Your task to perform on an android device: turn notification dots on Image 0: 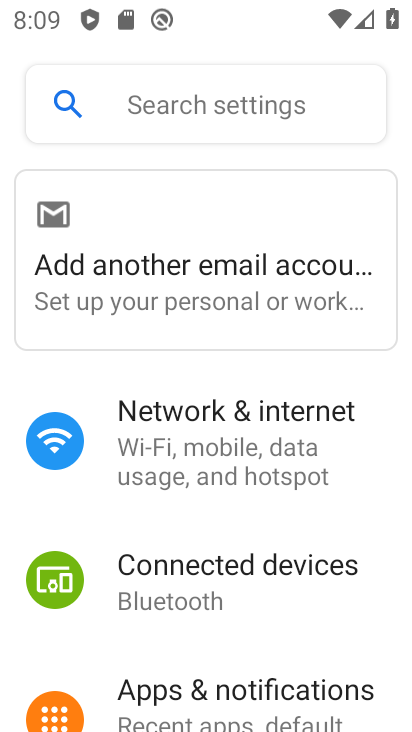
Step 0: press home button
Your task to perform on an android device: turn notification dots on Image 1: 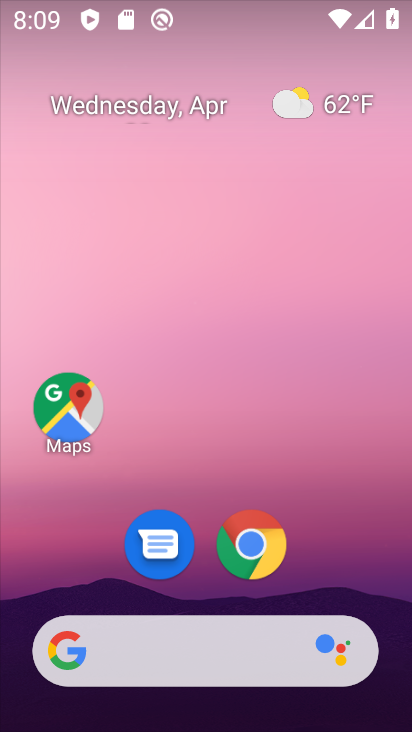
Step 1: drag from (358, 471) to (95, 79)
Your task to perform on an android device: turn notification dots on Image 2: 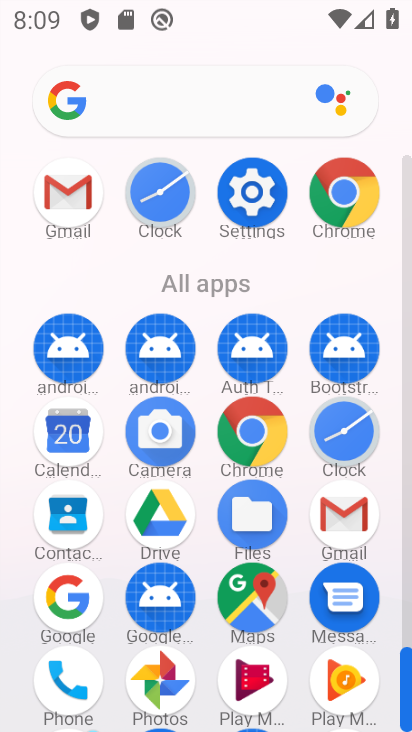
Step 2: click (261, 192)
Your task to perform on an android device: turn notification dots on Image 3: 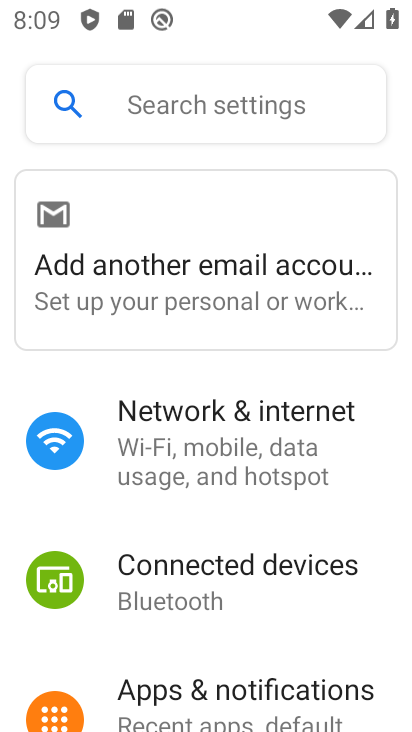
Step 3: click (204, 690)
Your task to perform on an android device: turn notification dots on Image 4: 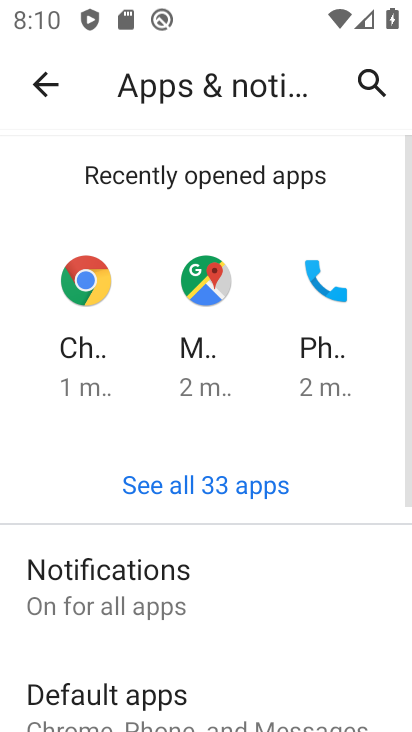
Step 4: drag from (247, 676) to (231, 436)
Your task to perform on an android device: turn notification dots on Image 5: 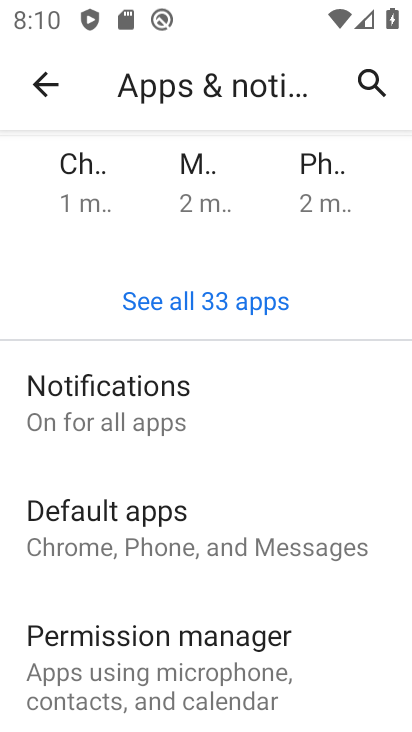
Step 5: click (105, 415)
Your task to perform on an android device: turn notification dots on Image 6: 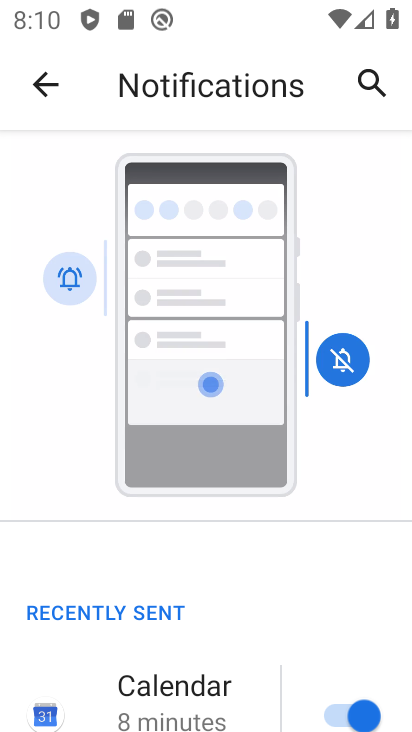
Step 6: drag from (193, 627) to (206, 208)
Your task to perform on an android device: turn notification dots on Image 7: 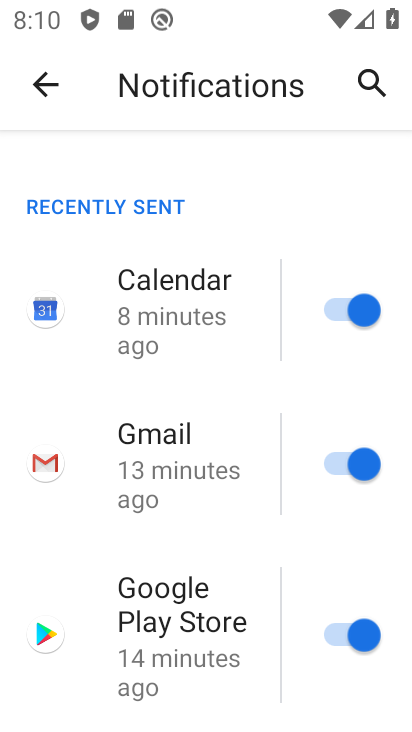
Step 7: drag from (152, 605) to (174, 237)
Your task to perform on an android device: turn notification dots on Image 8: 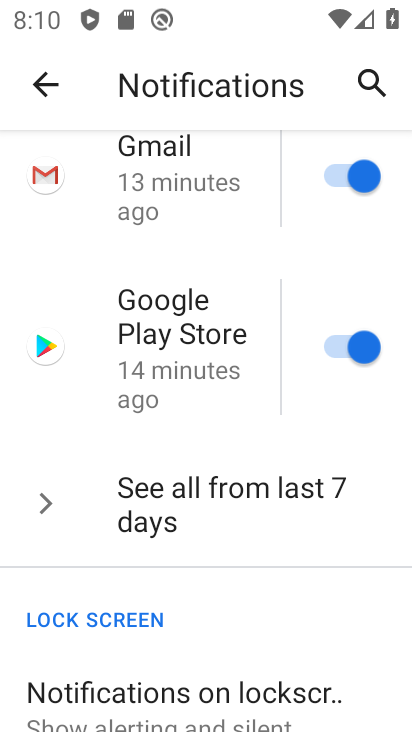
Step 8: drag from (173, 611) to (179, 229)
Your task to perform on an android device: turn notification dots on Image 9: 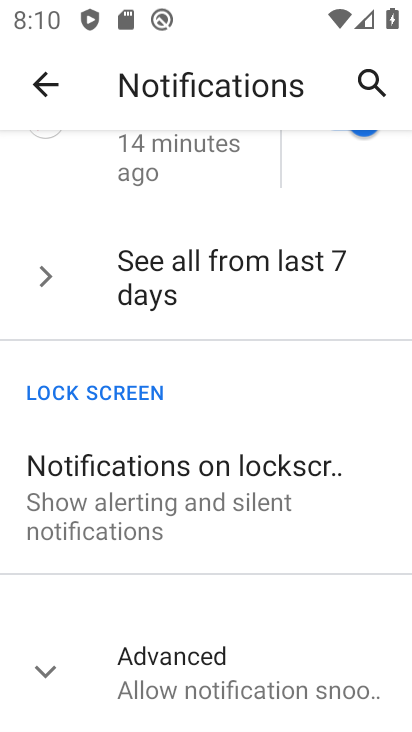
Step 9: click (164, 693)
Your task to perform on an android device: turn notification dots on Image 10: 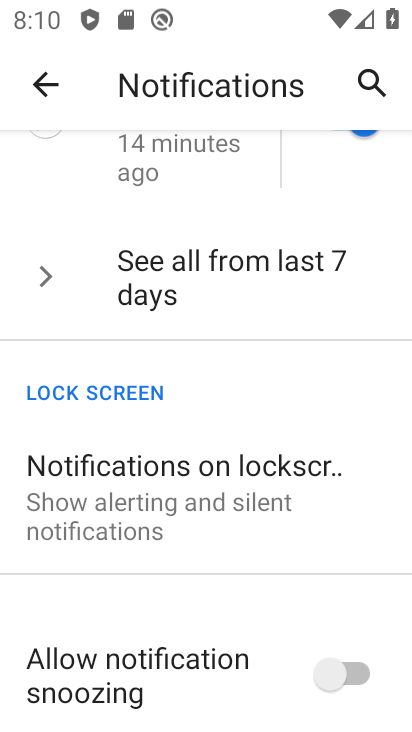
Step 10: task complete